Your task to perform on an android device: Go to display settings Image 0: 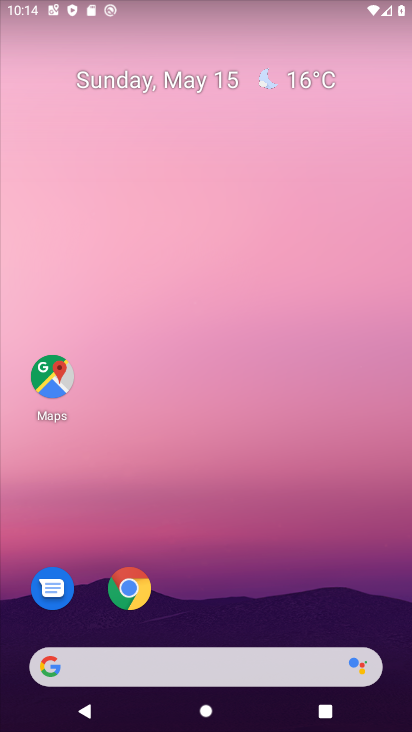
Step 0: drag from (208, 526) to (281, 135)
Your task to perform on an android device: Go to display settings Image 1: 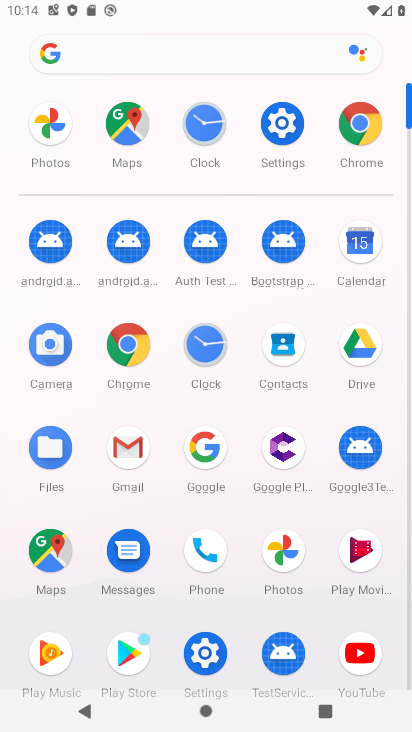
Step 1: click (286, 144)
Your task to perform on an android device: Go to display settings Image 2: 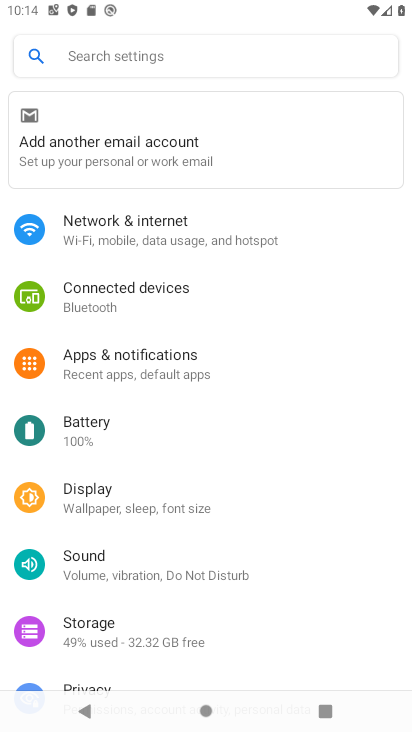
Step 2: click (101, 485)
Your task to perform on an android device: Go to display settings Image 3: 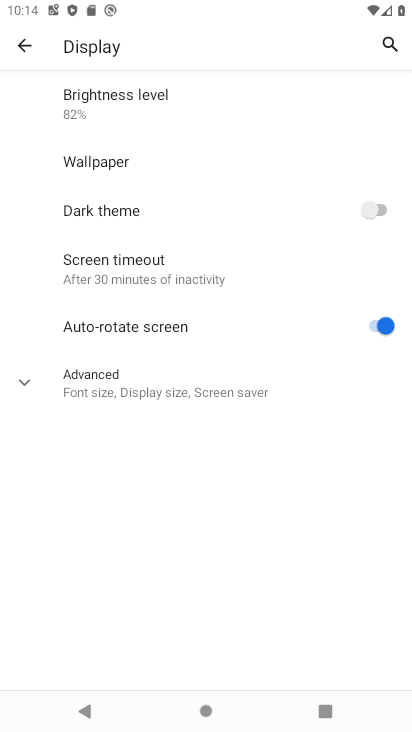
Step 3: task complete